Your task to perform on an android device: move a message to another label in the gmail app Image 0: 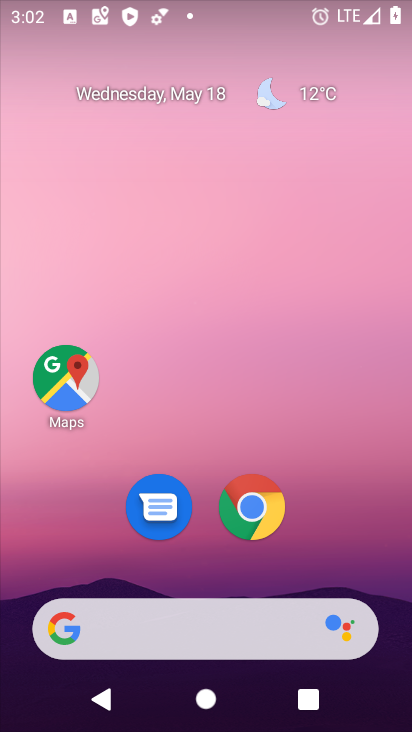
Step 0: drag from (394, 635) to (314, 99)
Your task to perform on an android device: move a message to another label in the gmail app Image 1: 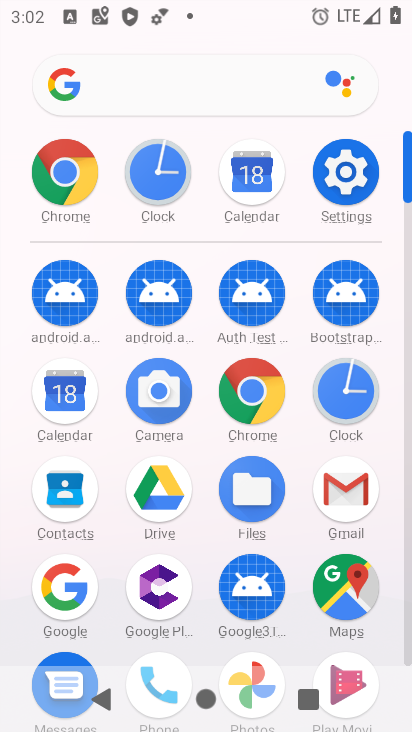
Step 1: click (405, 643)
Your task to perform on an android device: move a message to another label in the gmail app Image 2: 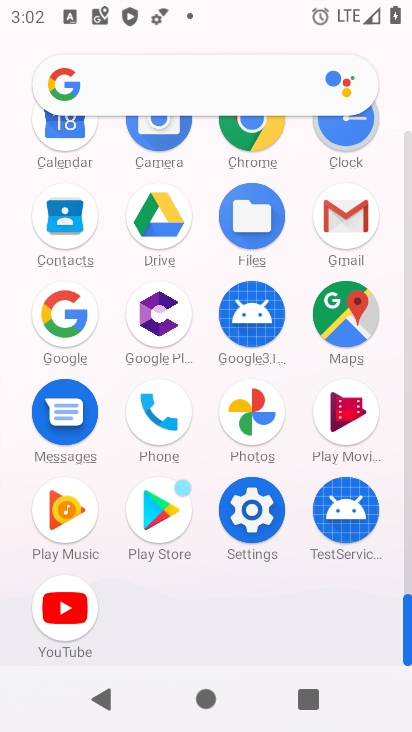
Step 2: click (344, 215)
Your task to perform on an android device: move a message to another label in the gmail app Image 3: 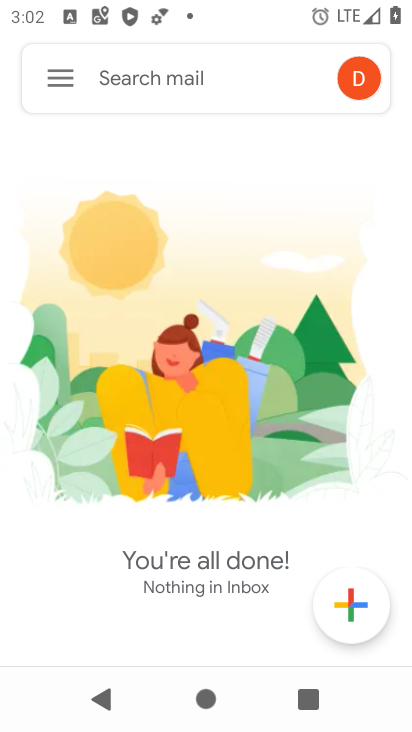
Step 3: click (62, 84)
Your task to perform on an android device: move a message to another label in the gmail app Image 4: 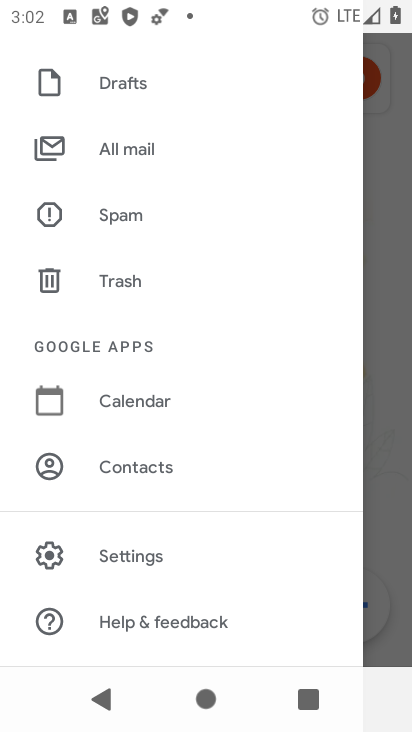
Step 4: click (148, 556)
Your task to perform on an android device: move a message to another label in the gmail app Image 5: 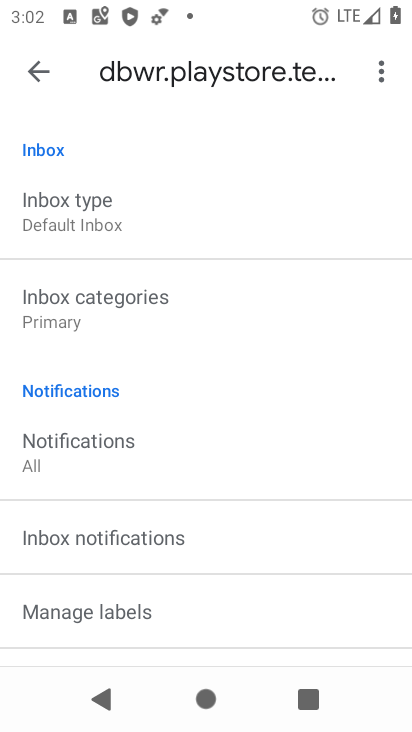
Step 5: press back button
Your task to perform on an android device: move a message to another label in the gmail app Image 6: 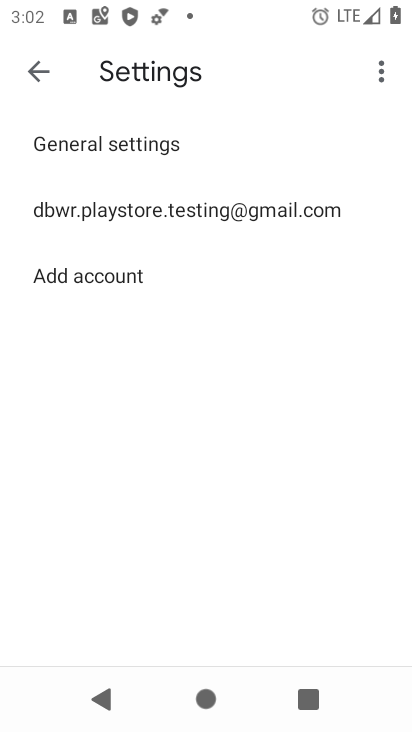
Step 6: press back button
Your task to perform on an android device: move a message to another label in the gmail app Image 7: 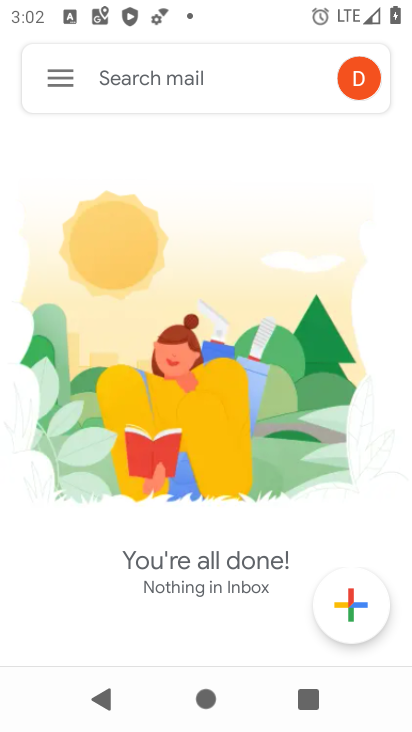
Step 7: click (62, 70)
Your task to perform on an android device: move a message to another label in the gmail app Image 8: 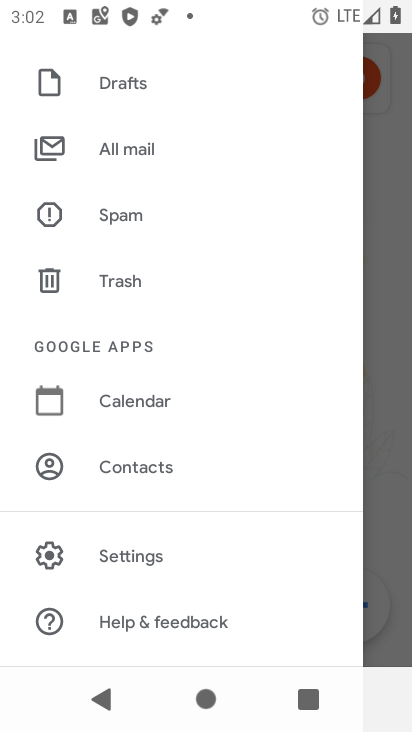
Step 8: click (124, 153)
Your task to perform on an android device: move a message to another label in the gmail app Image 9: 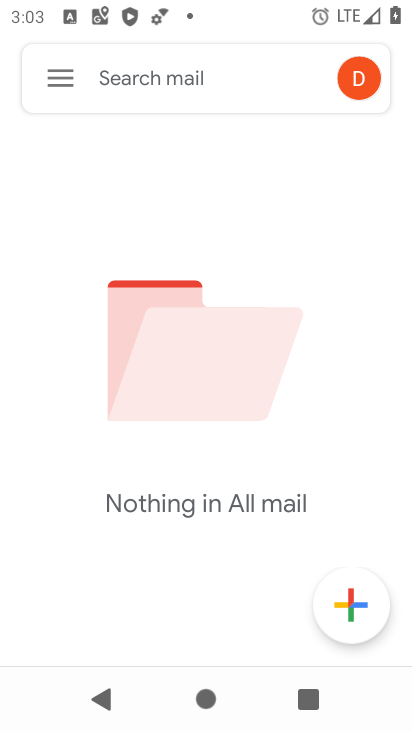
Step 9: task complete